Your task to perform on an android device: Go to ESPN.com Image 0: 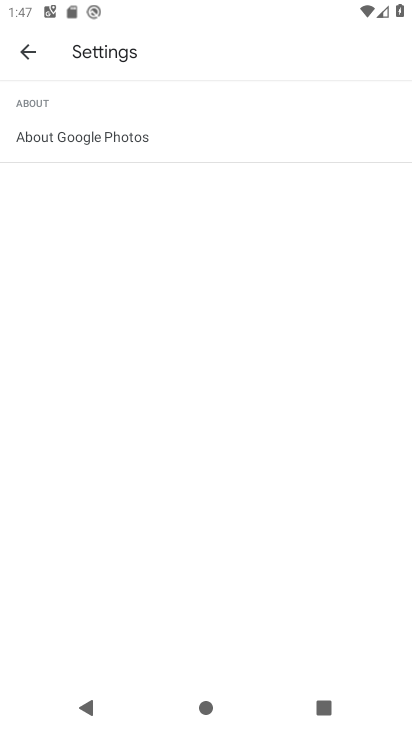
Step 0: press home button
Your task to perform on an android device: Go to ESPN.com Image 1: 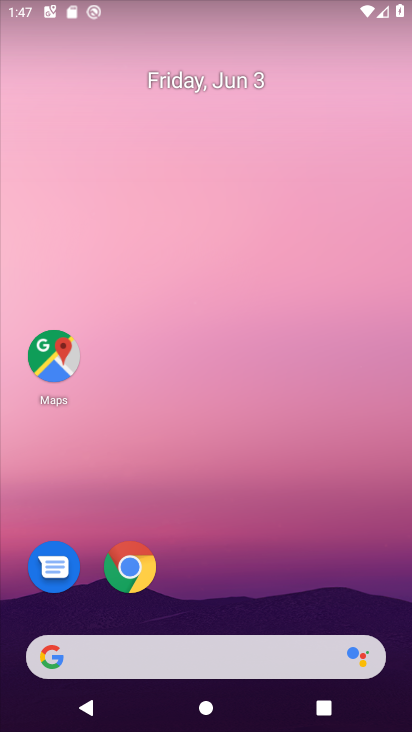
Step 1: click (123, 556)
Your task to perform on an android device: Go to ESPN.com Image 2: 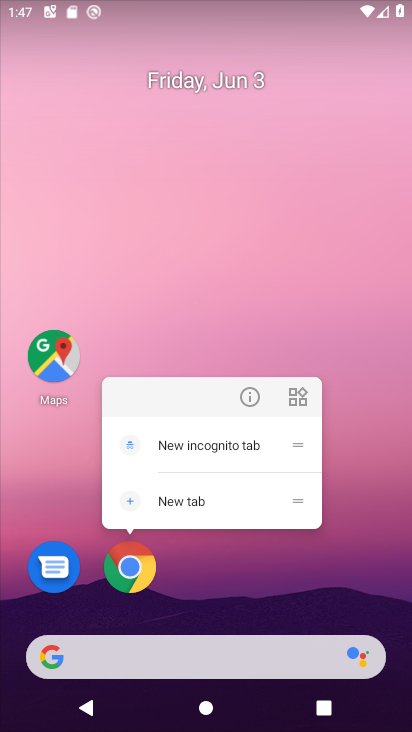
Step 2: click (132, 576)
Your task to perform on an android device: Go to ESPN.com Image 3: 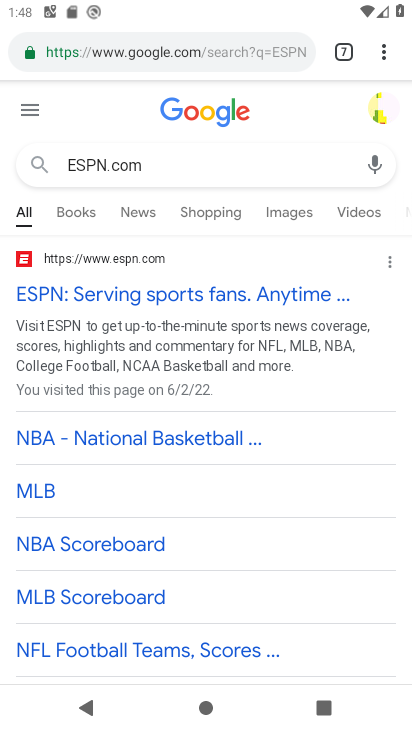
Step 3: task complete